Your task to perform on an android device: open app "Google Chat" (install if not already installed) Image 0: 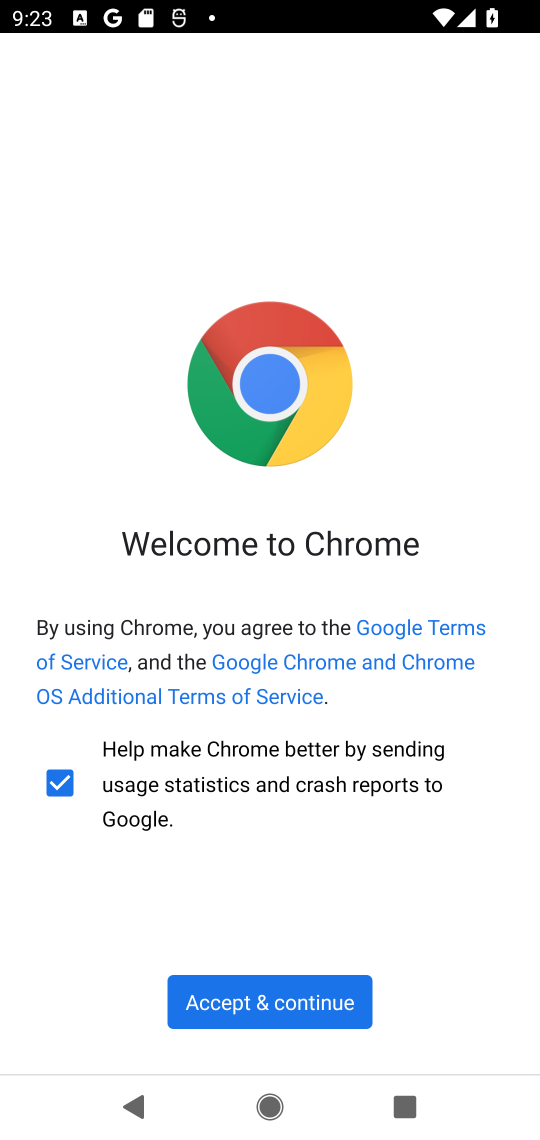
Step 0: press home button
Your task to perform on an android device: open app "Google Chat" (install if not already installed) Image 1: 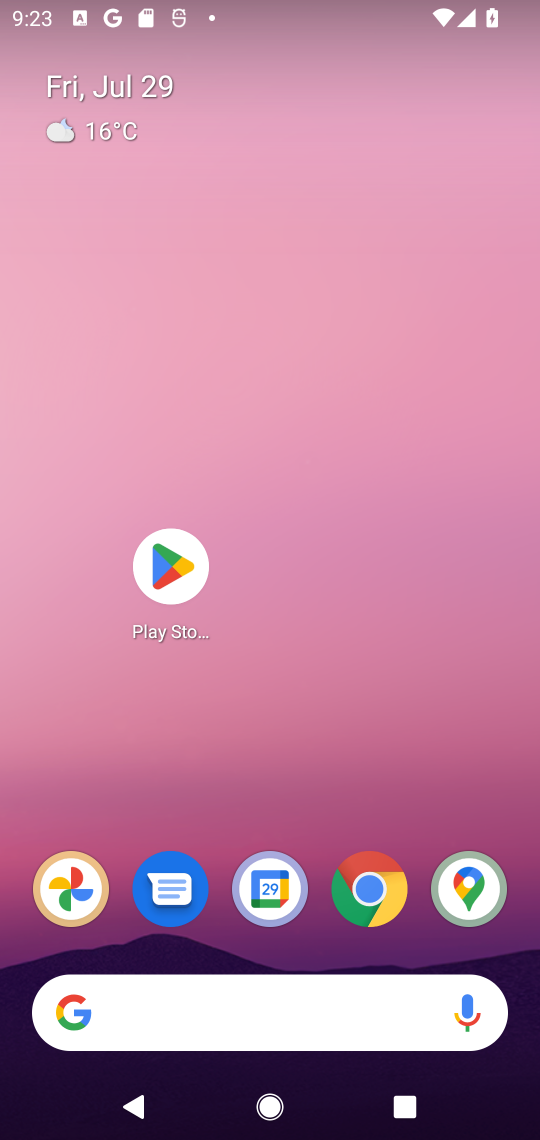
Step 1: click (176, 575)
Your task to perform on an android device: open app "Google Chat" (install if not already installed) Image 2: 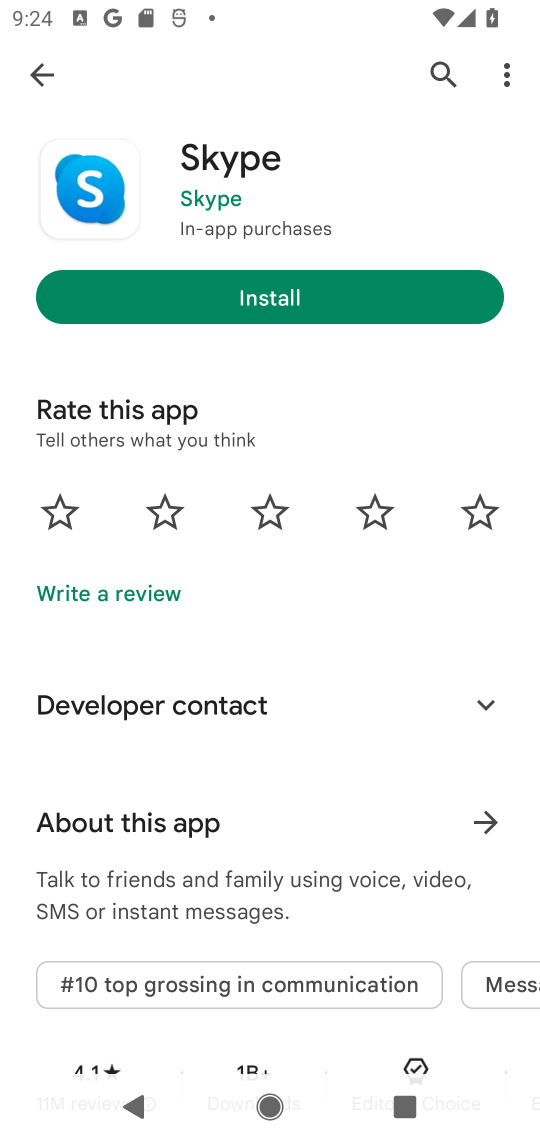
Step 2: click (444, 72)
Your task to perform on an android device: open app "Google Chat" (install if not already installed) Image 3: 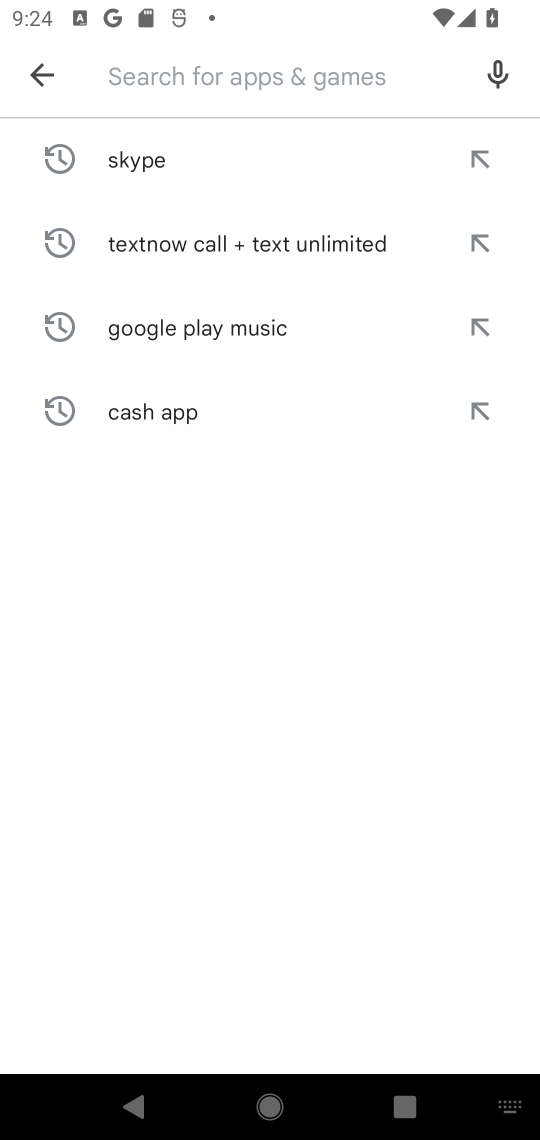
Step 3: type "Google Chat"
Your task to perform on an android device: open app "Google Chat" (install if not already installed) Image 4: 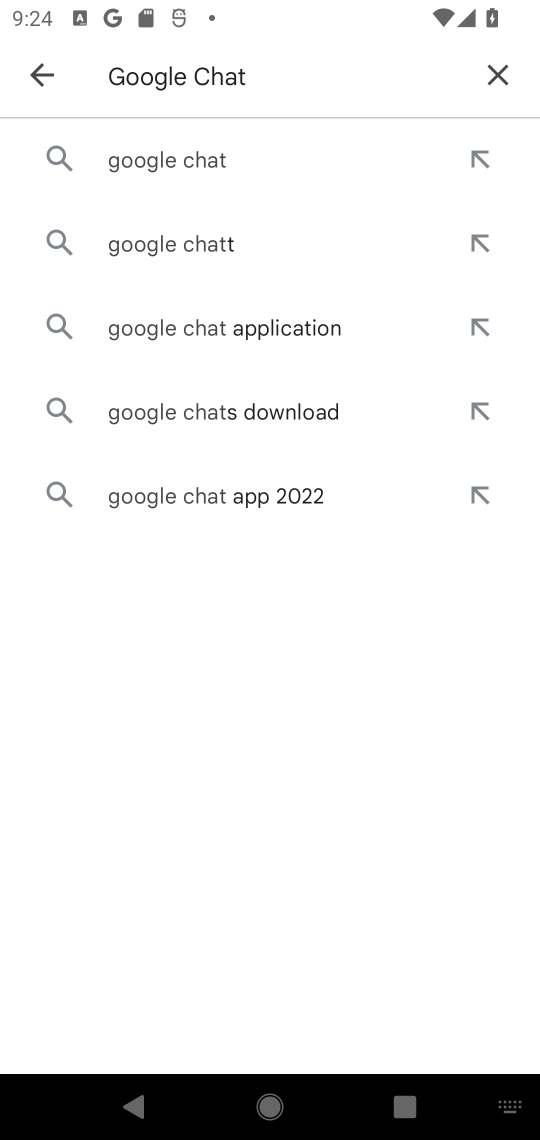
Step 4: click (220, 165)
Your task to perform on an android device: open app "Google Chat" (install if not already installed) Image 5: 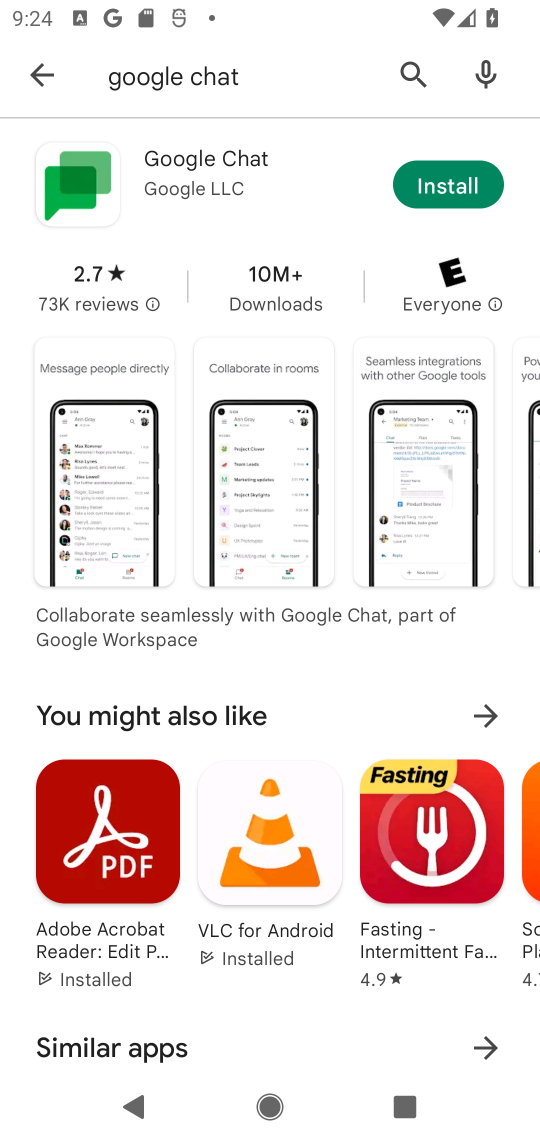
Step 5: click (430, 188)
Your task to perform on an android device: open app "Google Chat" (install if not already installed) Image 6: 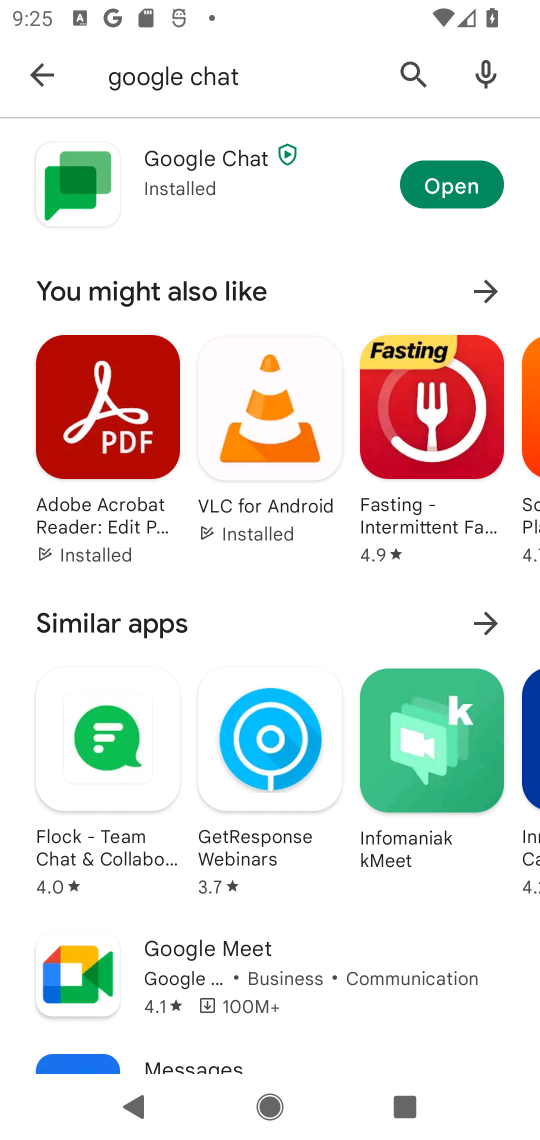
Step 6: click (425, 182)
Your task to perform on an android device: open app "Google Chat" (install if not already installed) Image 7: 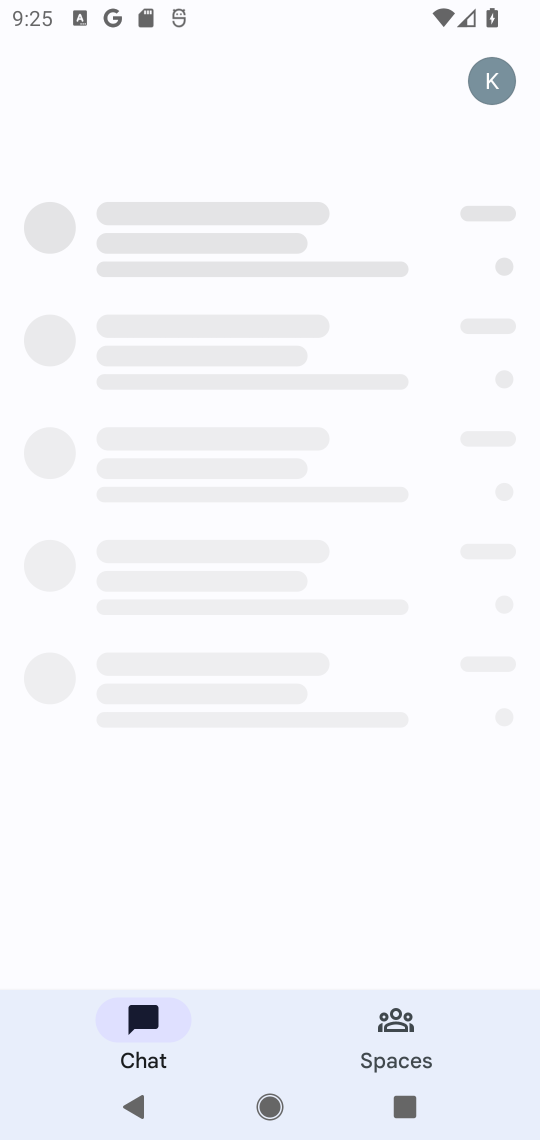
Step 7: task complete